Your task to perform on an android device: Search for sushi restaurants on Maps Image 0: 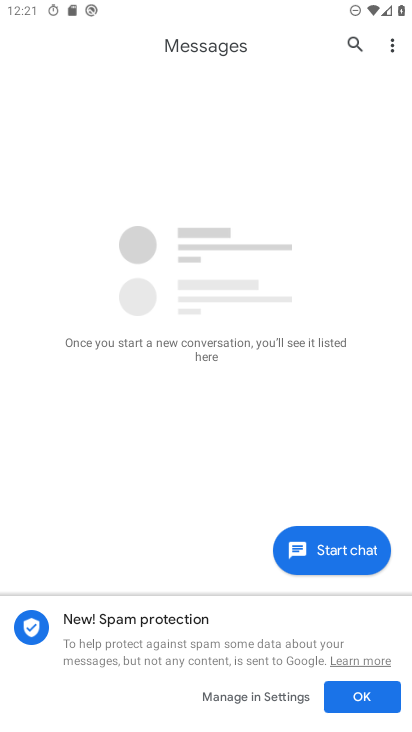
Step 0: press home button
Your task to perform on an android device: Search for sushi restaurants on Maps Image 1: 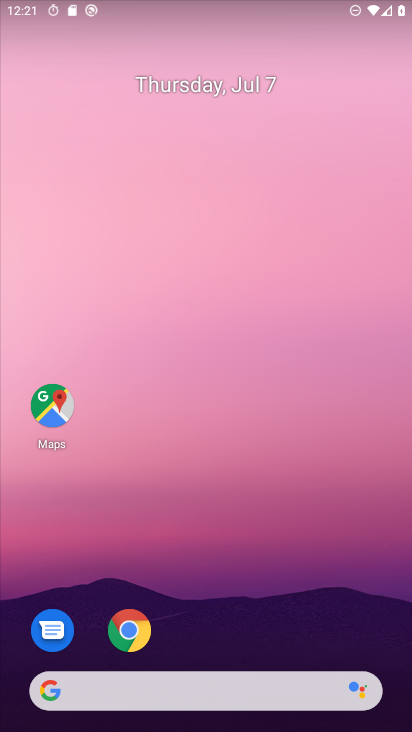
Step 1: click (54, 416)
Your task to perform on an android device: Search for sushi restaurants on Maps Image 2: 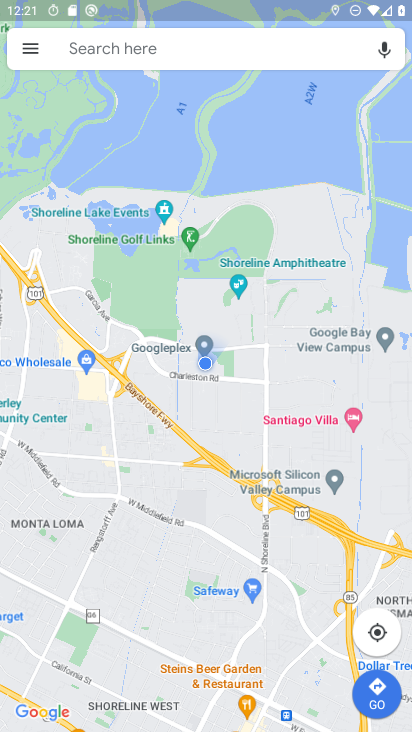
Step 2: click (221, 55)
Your task to perform on an android device: Search for sushi restaurants on Maps Image 3: 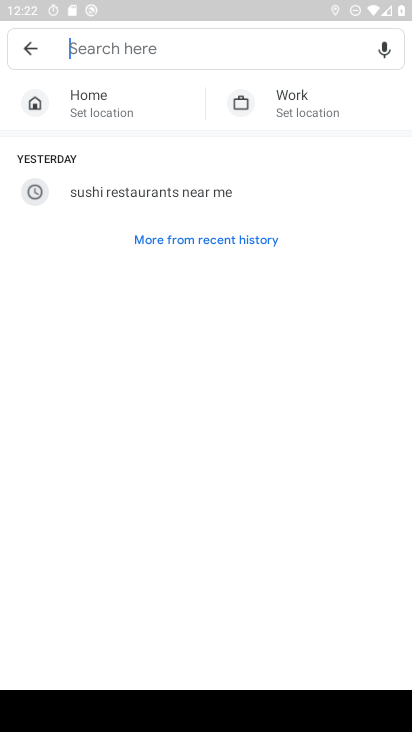
Step 3: type "sushi restaurants"
Your task to perform on an android device: Search for sushi restaurants on Maps Image 4: 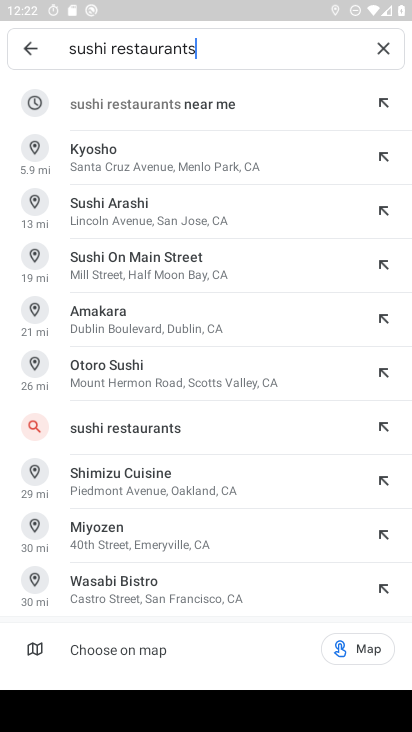
Step 4: click (173, 111)
Your task to perform on an android device: Search for sushi restaurants on Maps Image 5: 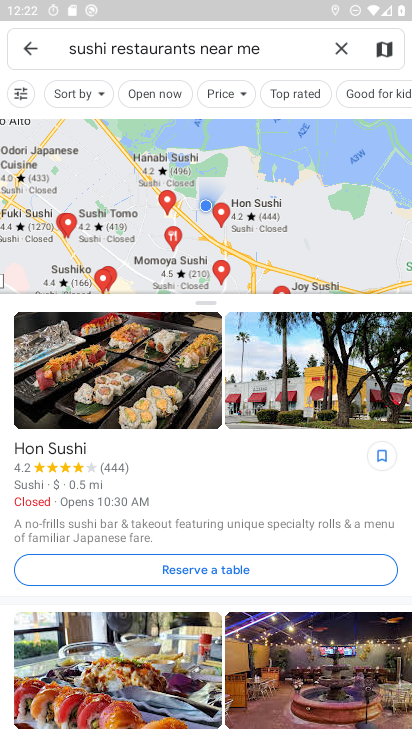
Step 5: task complete